Your task to perform on an android device: Go to Maps Image 0: 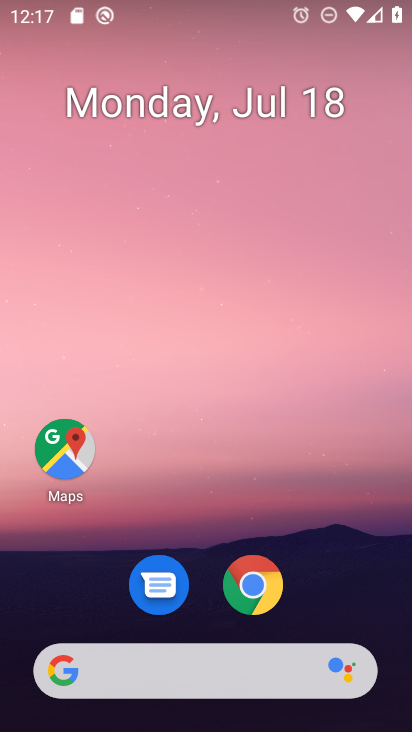
Step 0: click (56, 453)
Your task to perform on an android device: Go to Maps Image 1: 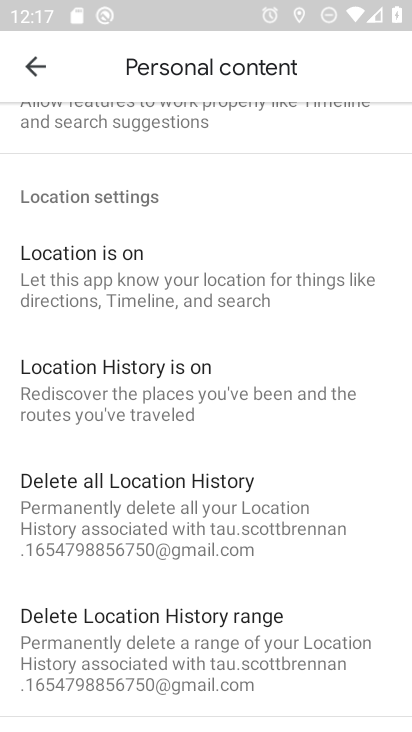
Step 1: click (30, 61)
Your task to perform on an android device: Go to Maps Image 2: 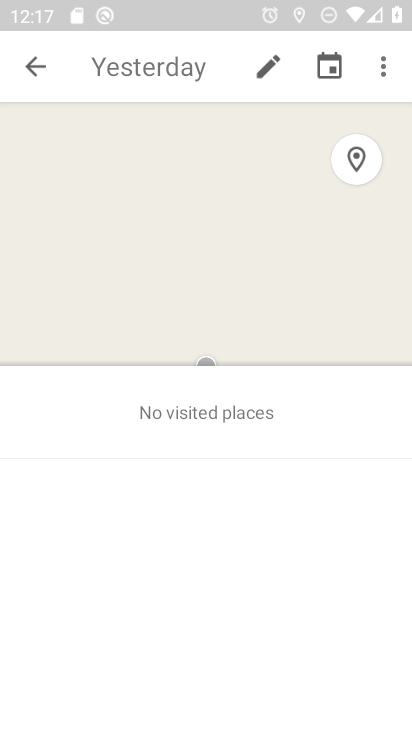
Step 2: click (30, 61)
Your task to perform on an android device: Go to Maps Image 3: 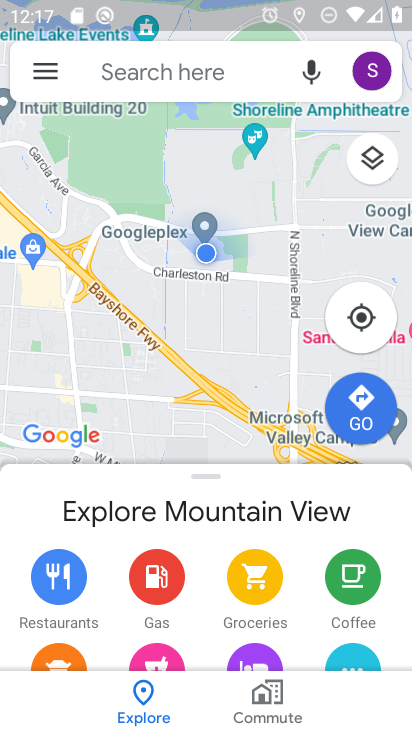
Step 3: task complete